Your task to perform on an android device: Open the web browser Image 0: 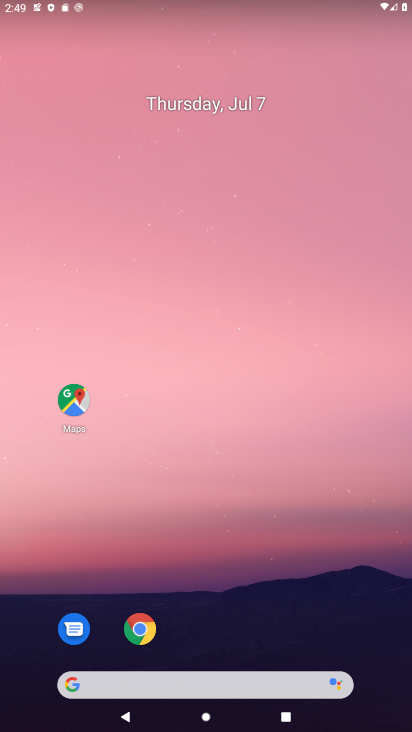
Step 0: click (124, 676)
Your task to perform on an android device: Open the web browser Image 1: 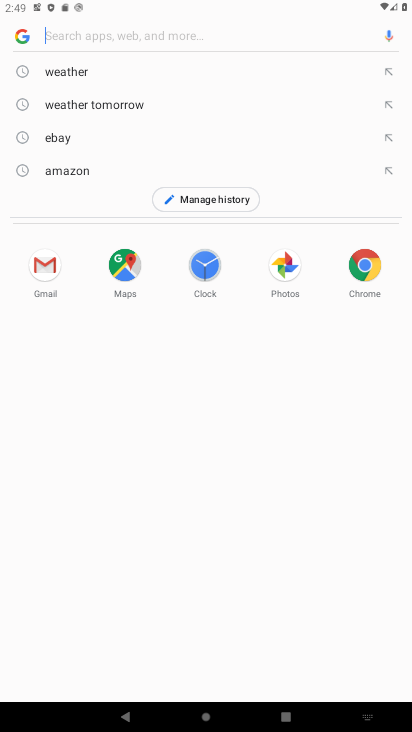
Step 1: task complete